Your task to perform on an android device: open app "Yahoo Mail" Image 0: 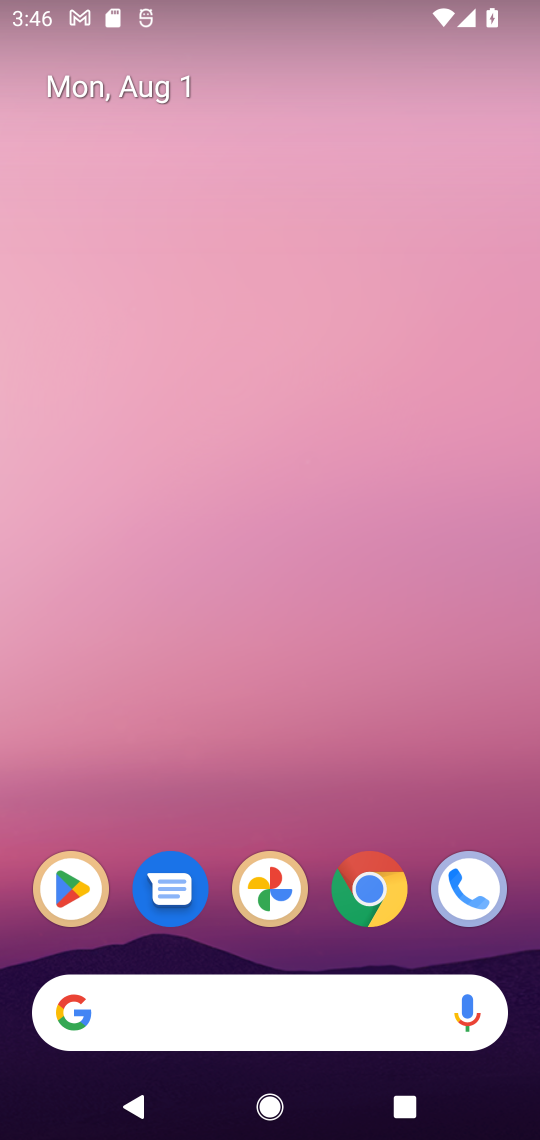
Step 0: drag from (312, 1010) to (273, 152)
Your task to perform on an android device: open app "Yahoo Mail" Image 1: 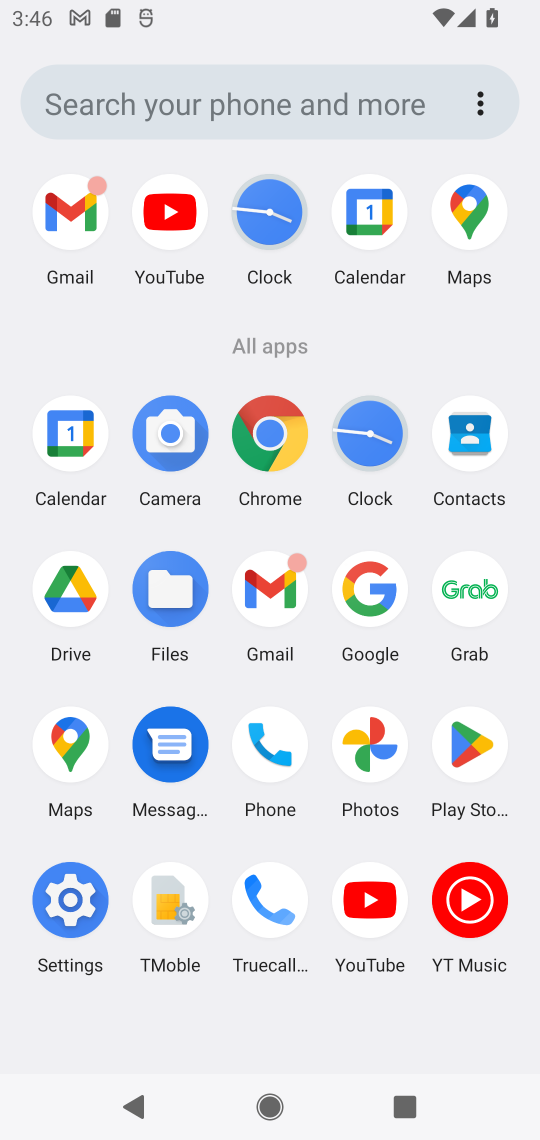
Step 1: click (429, 754)
Your task to perform on an android device: open app "Yahoo Mail" Image 2: 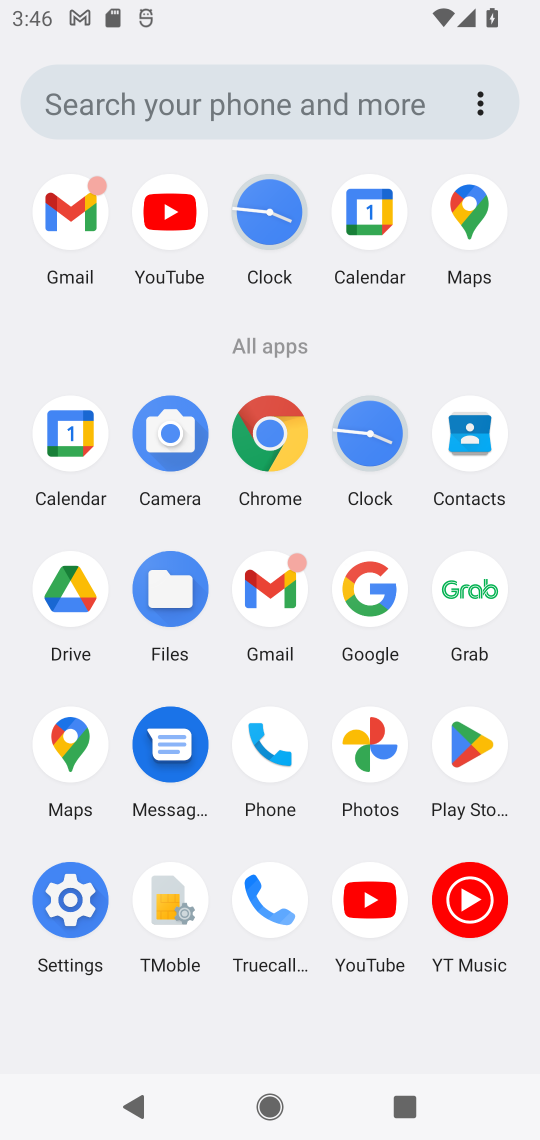
Step 2: click (453, 748)
Your task to perform on an android device: open app "Yahoo Mail" Image 3: 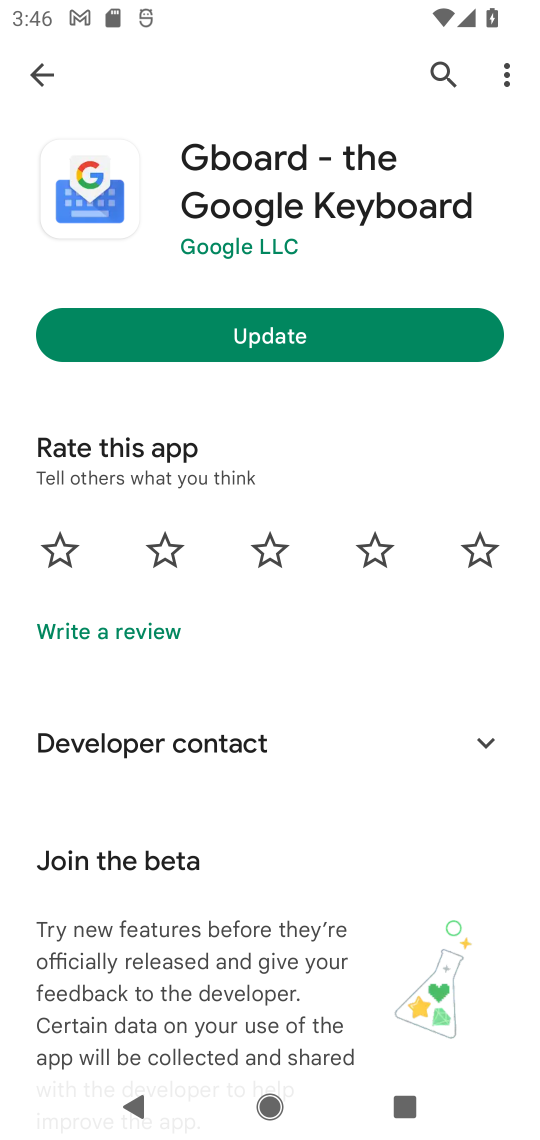
Step 3: click (435, 74)
Your task to perform on an android device: open app "Yahoo Mail" Image 4: 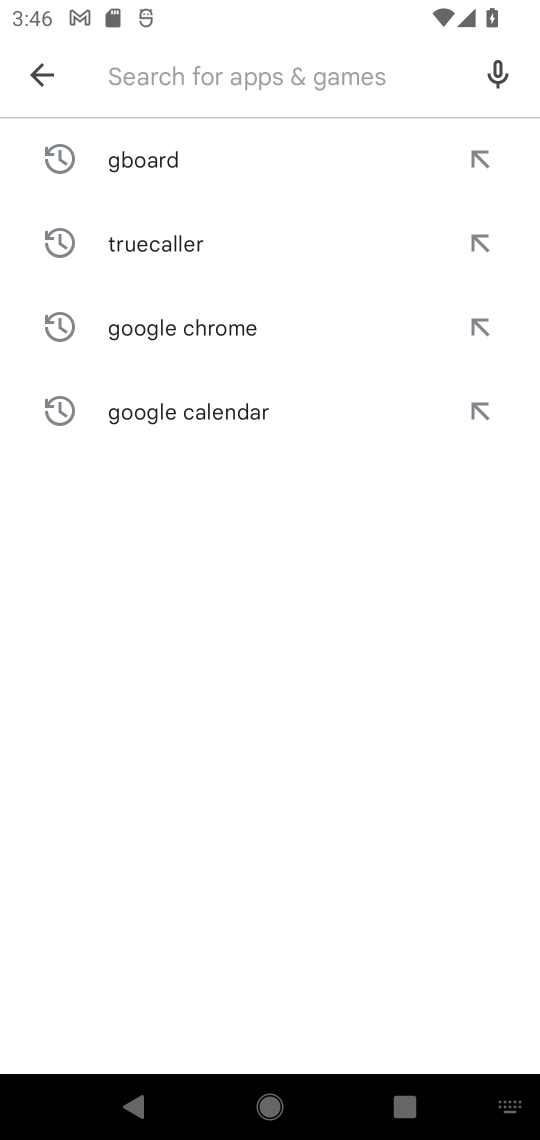
Step 4: click (334, 69)
Your task to perform on an android device: open app "Yahoo Mail" Image 5: 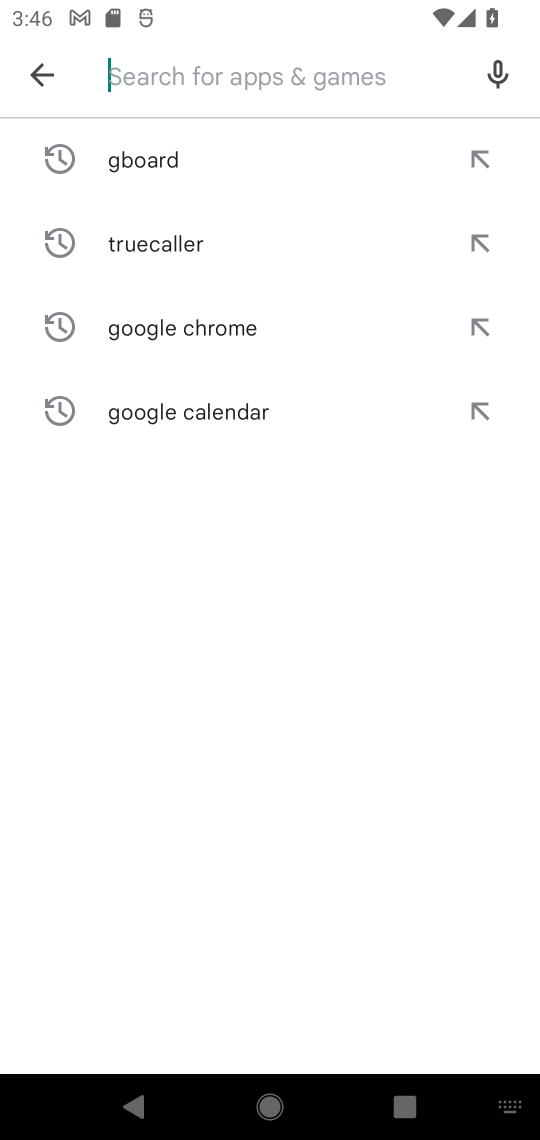
Step 5: click (337, 74)
Your task to perform on an android device: open app "Yahoo Mail" Image 6: 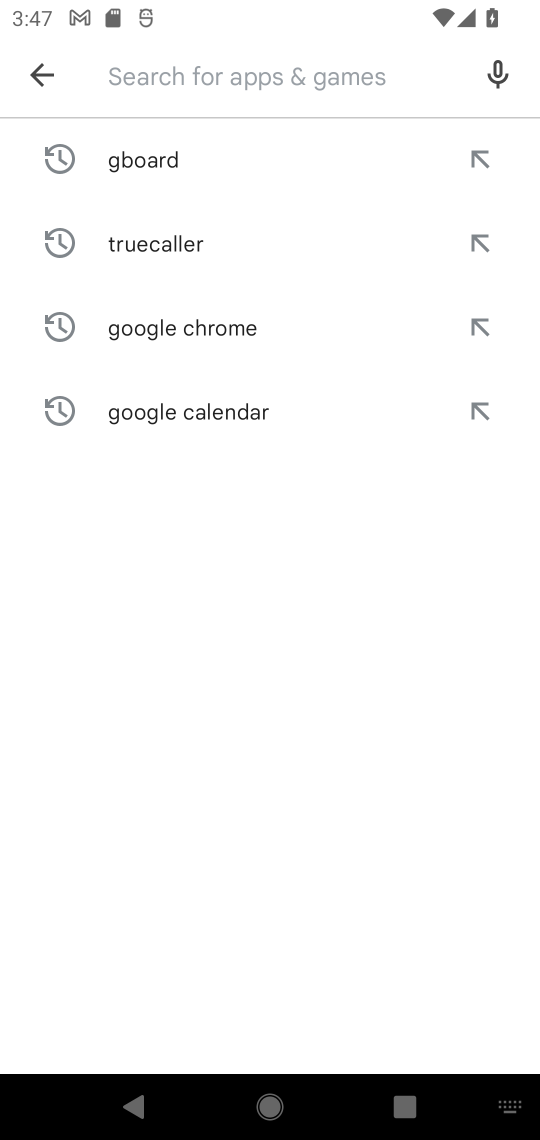
Step 6: type "yahoo mail"
Your task to perform on an android device: open app "Yahoo Mail" Image 7: 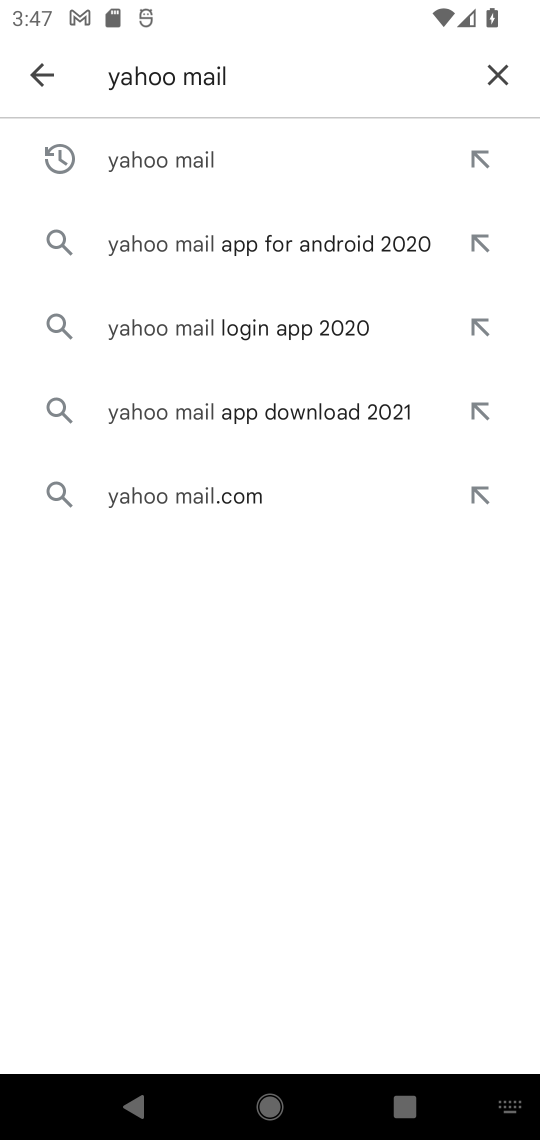
Step 7: click (187, 167)
Your task to perform on an android device: open app "Yahoo Mail" Image 8: 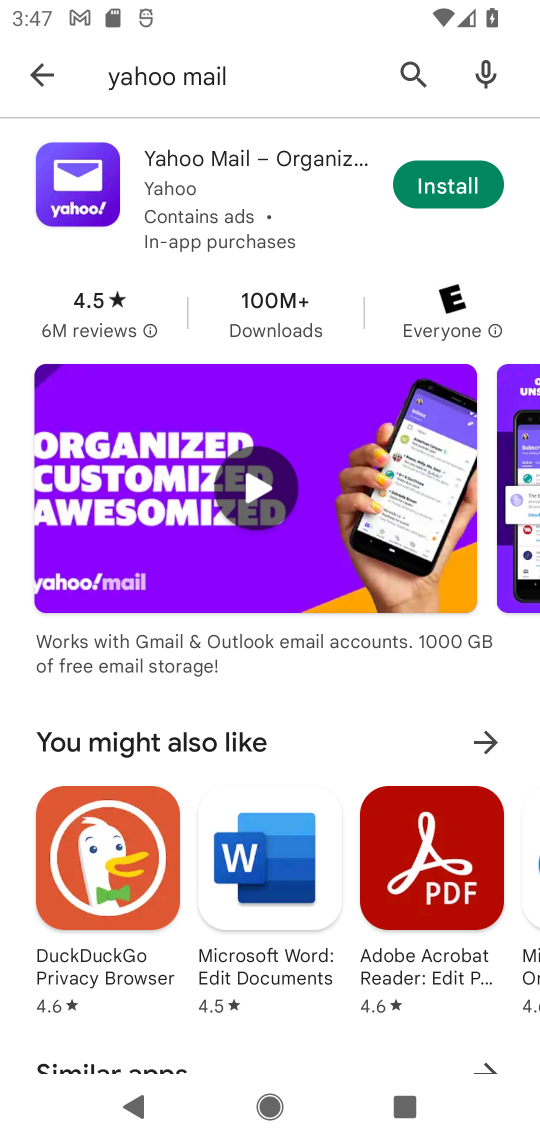
Step 8: task complete